Your task to perform on an android device: open app "Google Find My Device" (install if not already installed) Image 0: 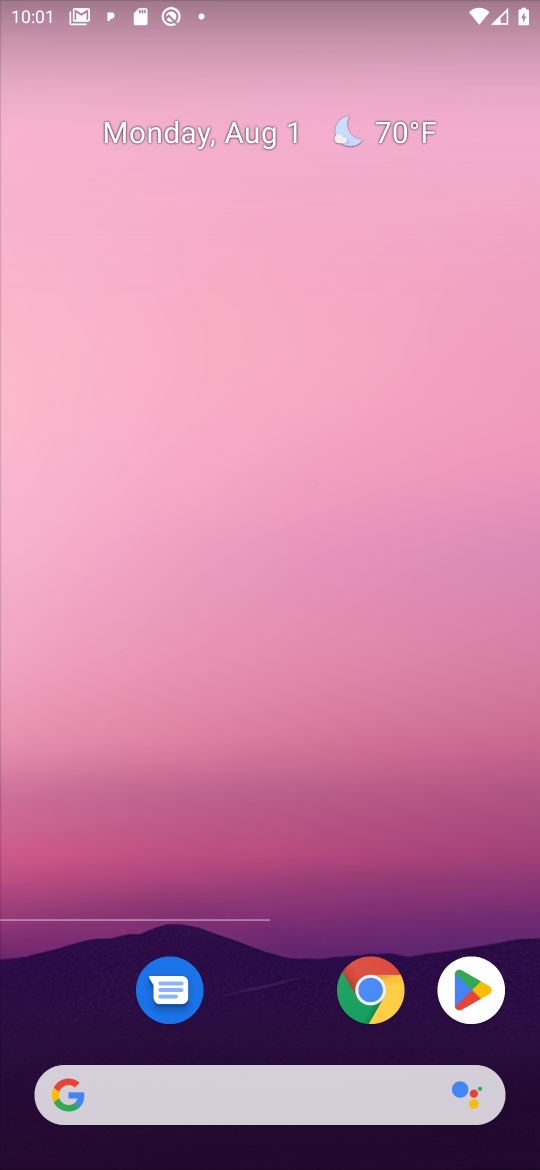
Step 0: press home button
Your task to perform on an android device: open app "Google Find My Device" (install if not already installed) Image 1: 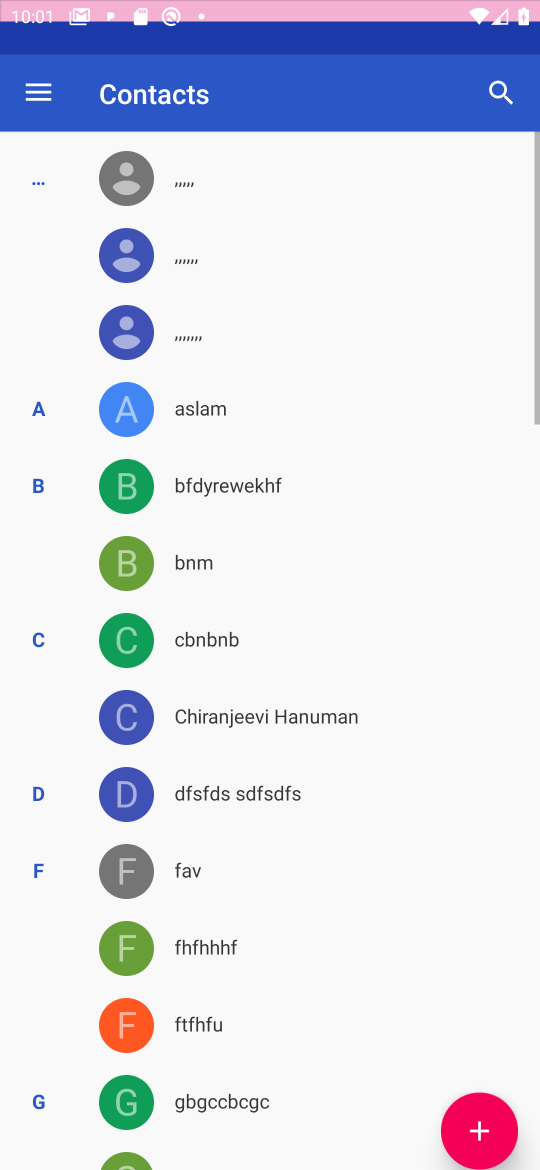
Step 1: click (455, 998)
Your task to perform on an android device: open app "Google Find My Device" (install if not already installed) Image 2: 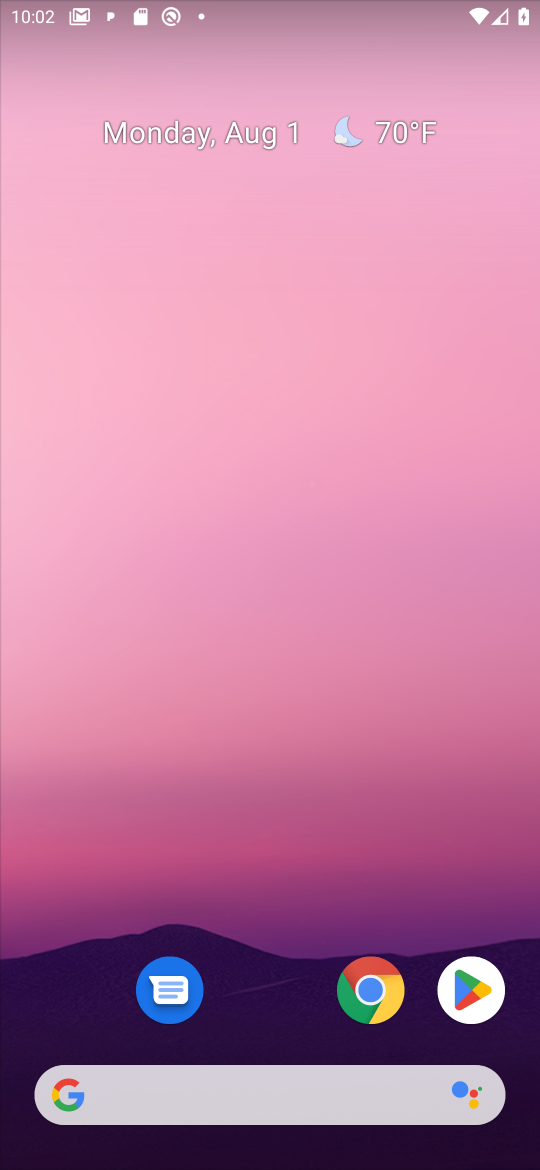
Step 2: press home button
Your task to perform on an android device: open app "Google Find My Device" (install if not already installed) Image 3: 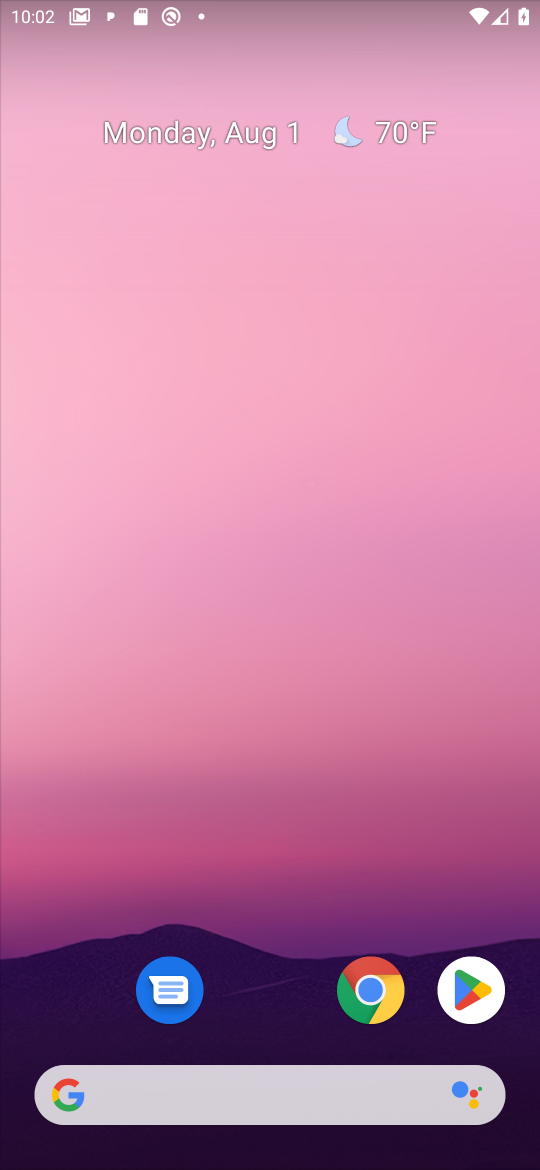
Step 3: click (472, 996)
Your task to perform on an android device: open app "Google Find My Device" (install if not already installed) Image 4: 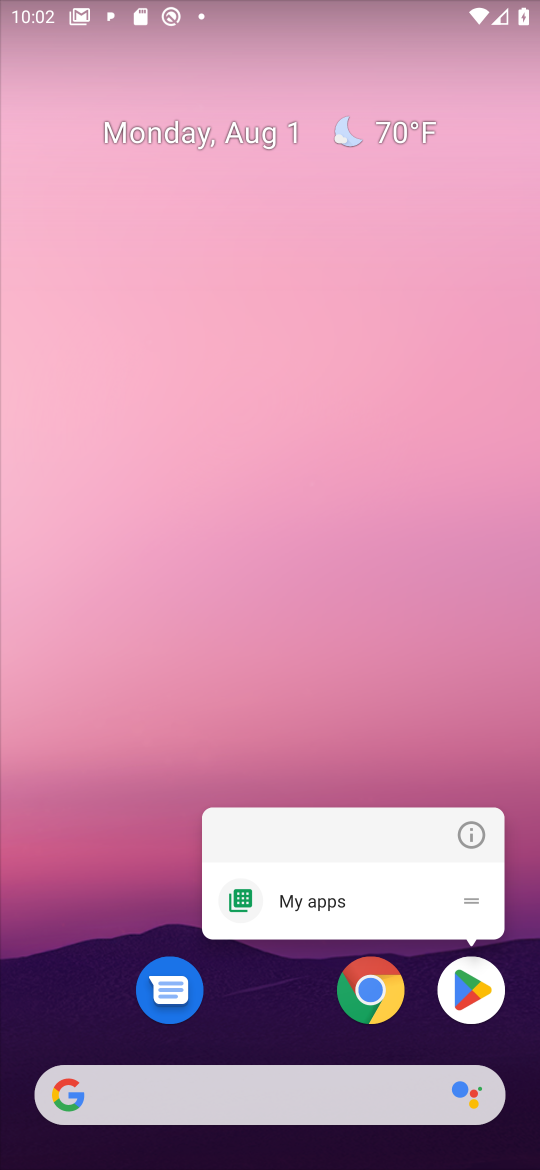
Step 4: click (475, 1002)
Your task to perform on an android device: open app "Google Find My Device" (install if not already installed) Image 5: 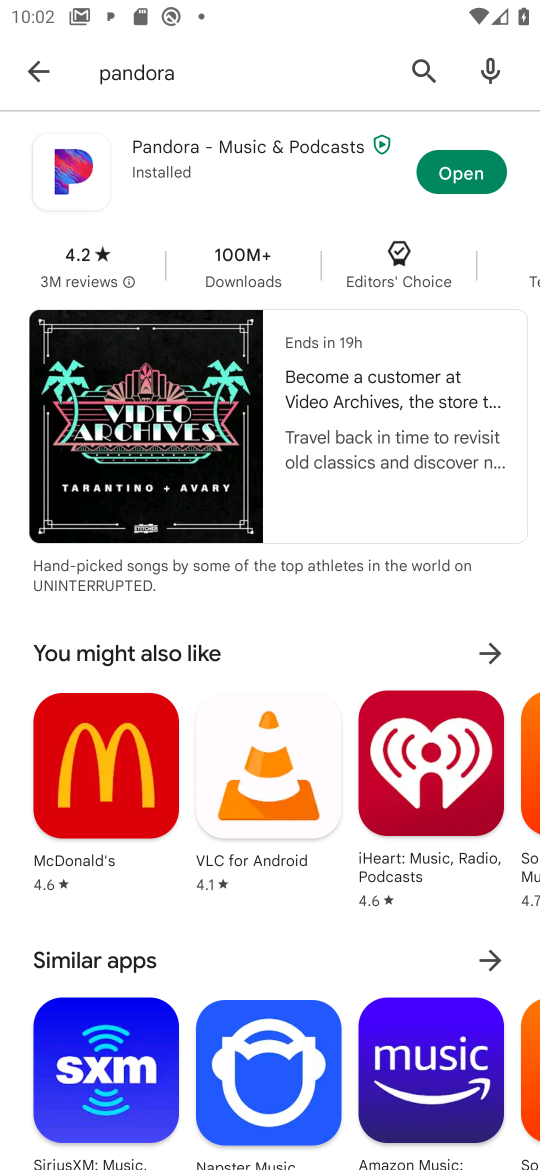
Step 5: click (421, 79)
Your task to perform on an android device: open app "Google Find My Device" (install if not already installed) Image 6: 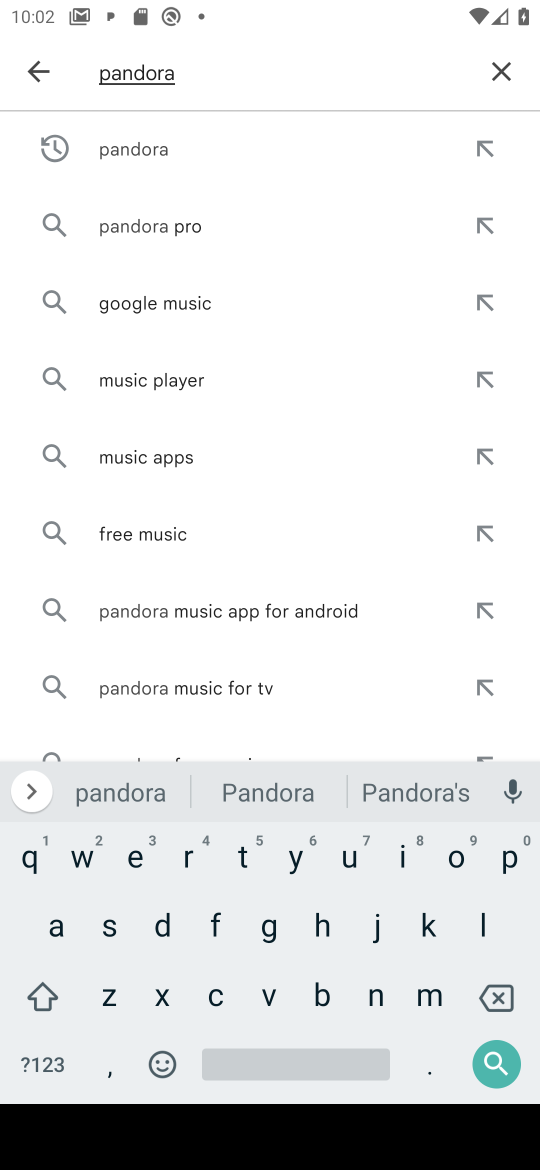
Step 6: click (505, 69)
Your task to perform on an android device: open app "Google Find My Device" (install if not already installed) Image 7: 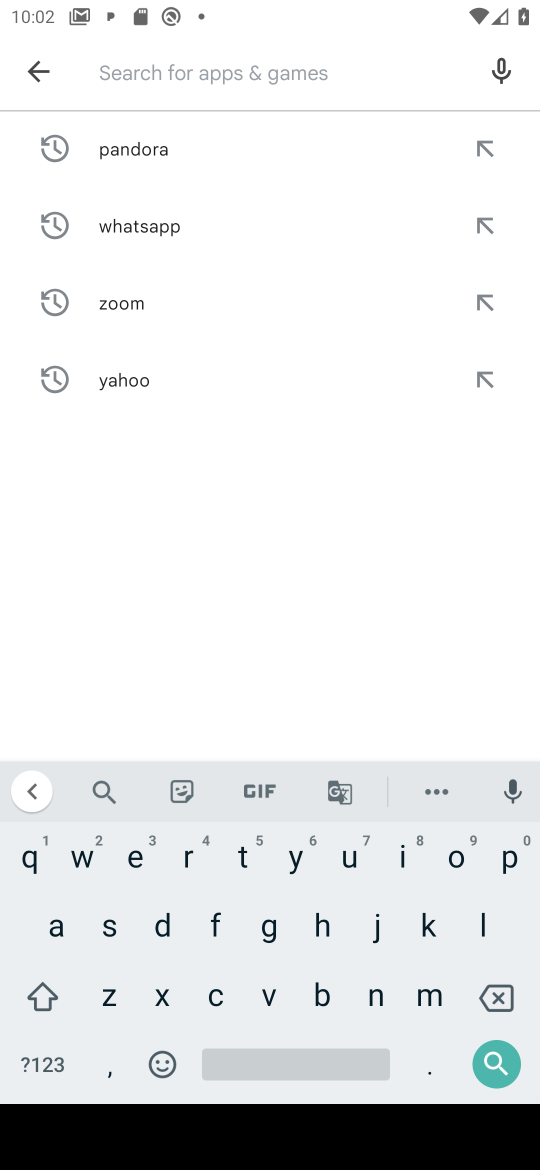
Step 7: click (213, 929)
Your task to perform on an android device: open app "Google Find My Device" (install if not already installed) Image 8: 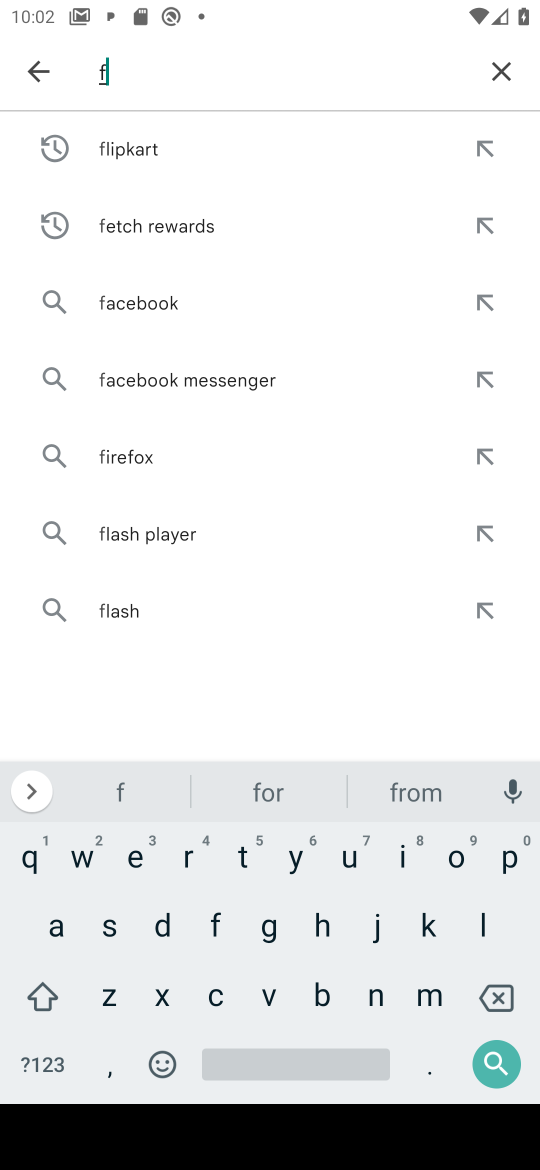
Step 8: click (403, 851)
Your task to perform on an android device: open app "Google Find My Device" (install if not already installed) Image 9: 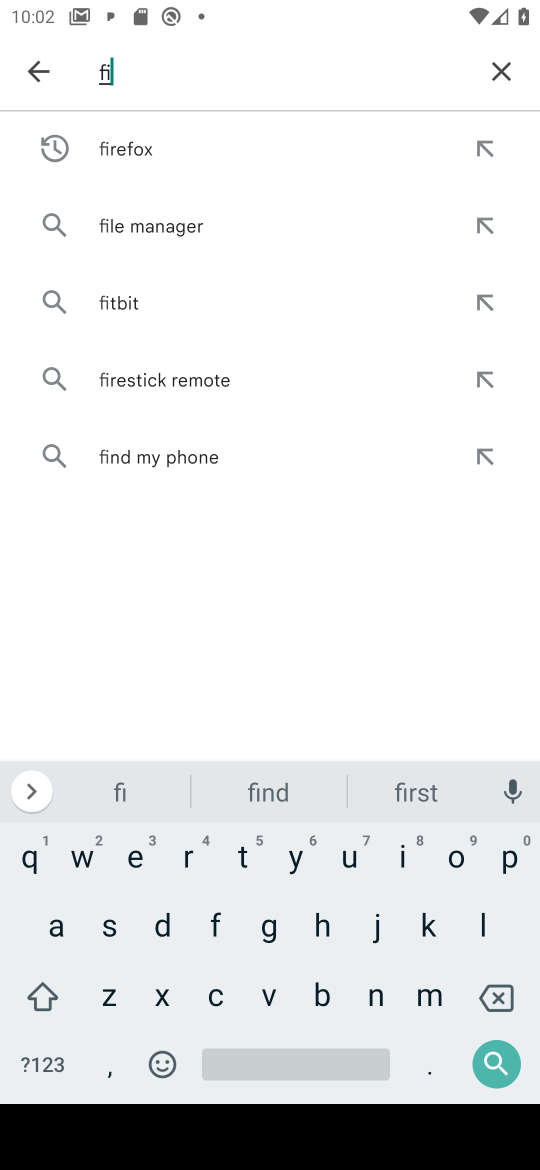
Step 9: click (382, 993)
Your task to perform on an android device: open app "Google Find My Device" (install if not already installed) Image 10: 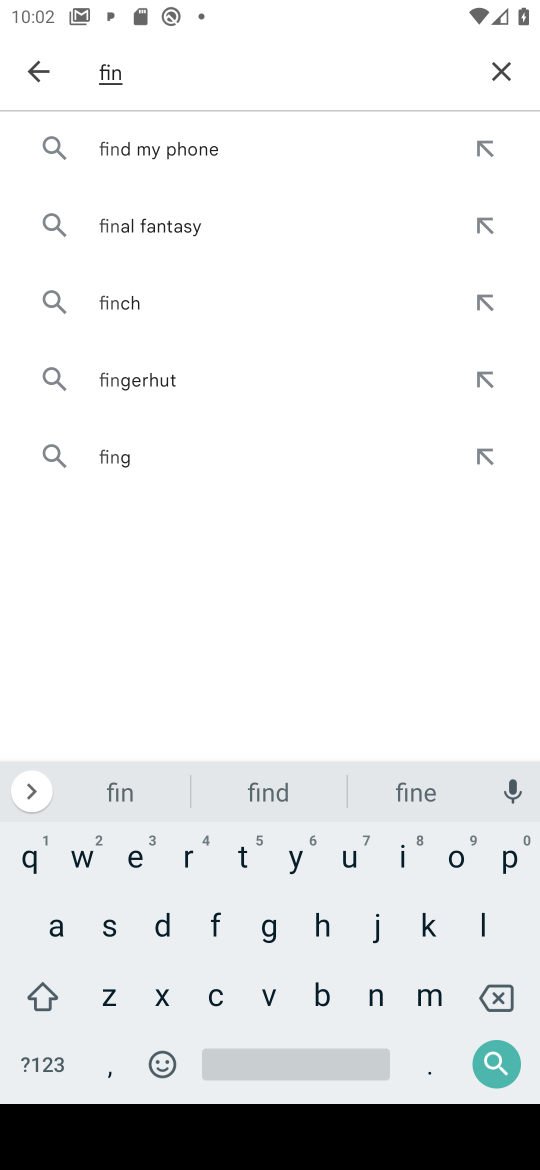
Step 10: click (163, 919)
Your task to perform on an android device: open app "Google Find My Device" (install if not already installed) Image 11: 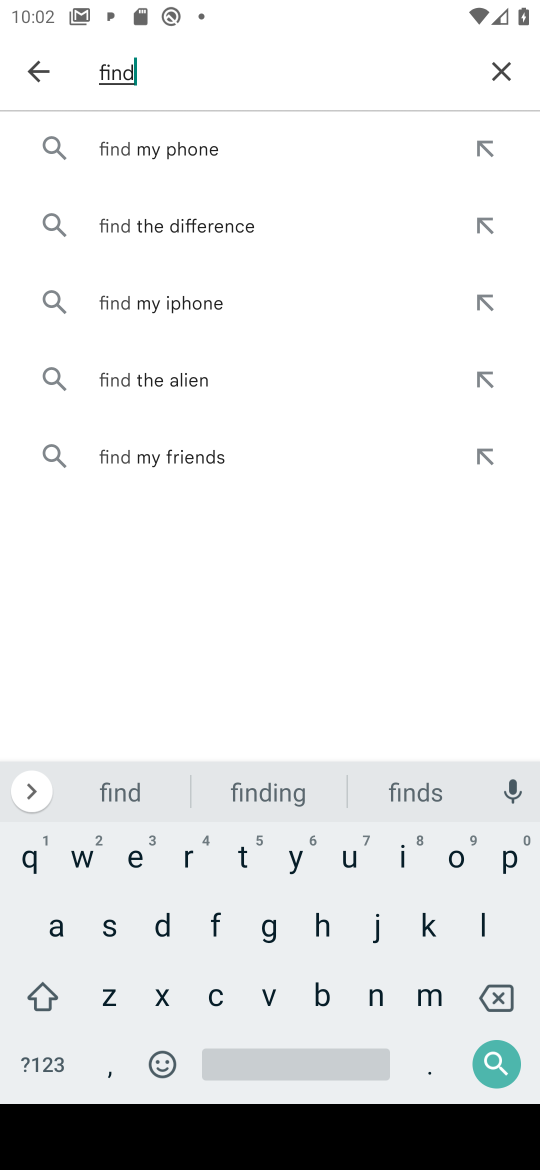
Step 11: click (310, 1049)
Your task to perform on an android device: open app "Google Find My Device" (install if not already installed) Image 12: 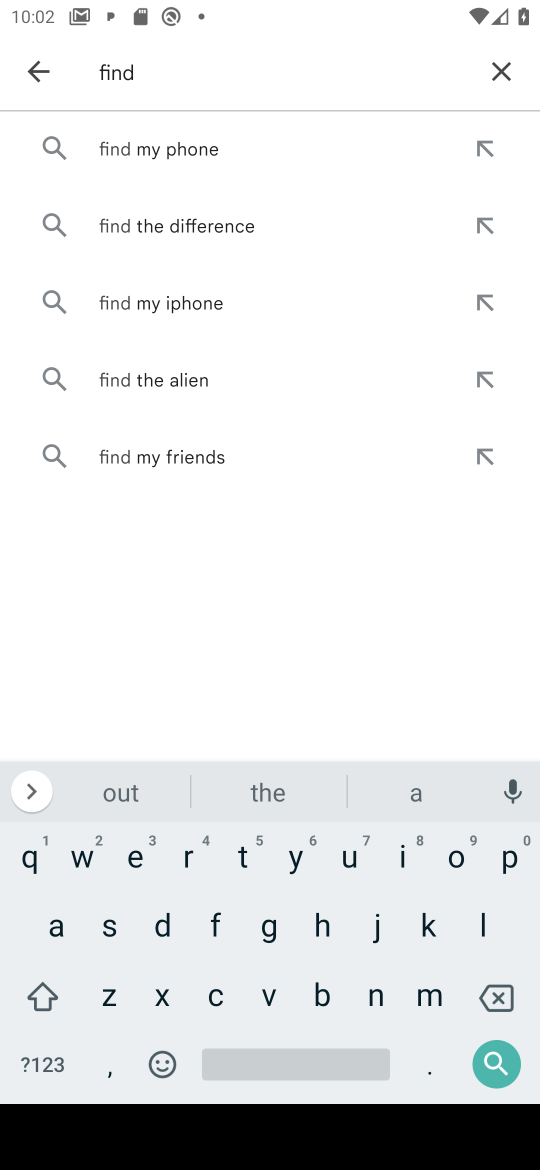
Step 12: click (413, 985)
Your task to perform on an android device: open app "Google Find My Device" (install if not already installed) Image 13: 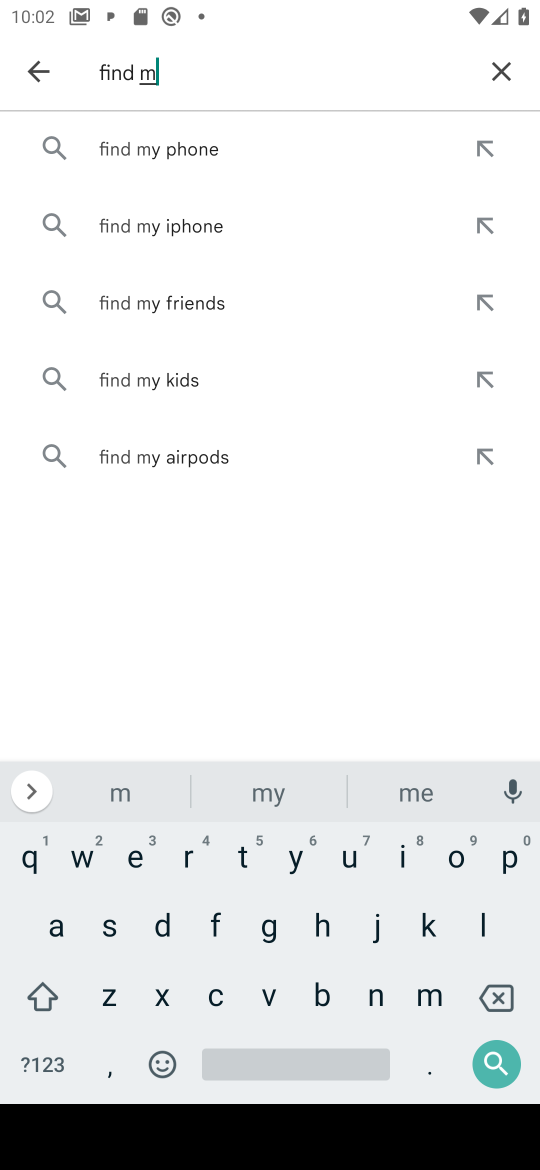
Step 13: click (273, 796)
Your task to perform on an android device: open app "Google Find My Device" (install if not already installed) Image 14: 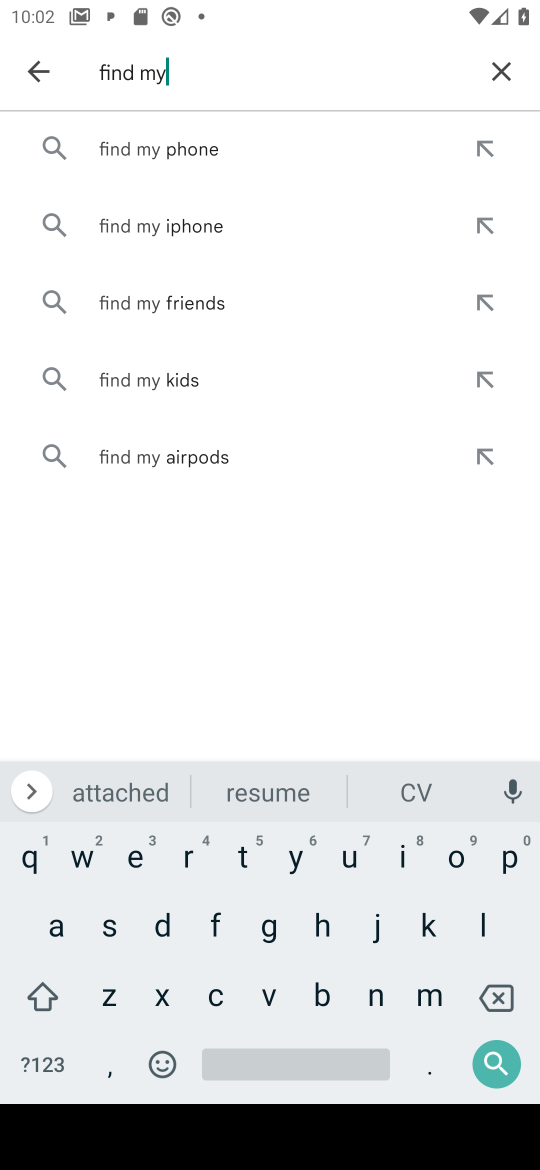
Step 14: click (167, 926)
Your task to perform on an android device: open app "Google Find My Device" (install if not already installed) Image 15: 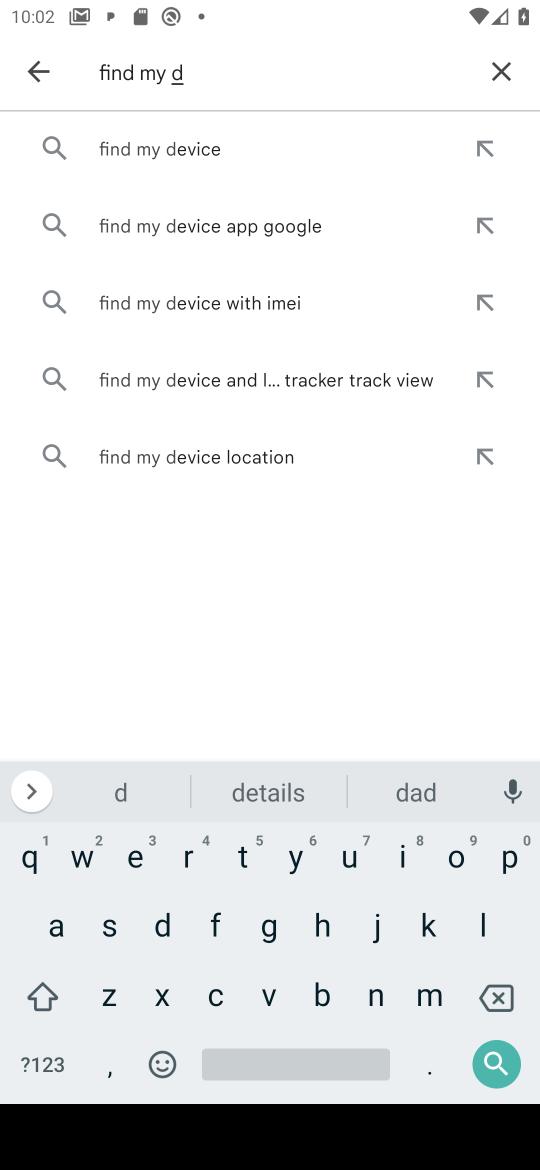
Step 15: click (191, 139)
Your task to perform on an android device: open app "Google Find My Device" (install if not already installed) Image 16: 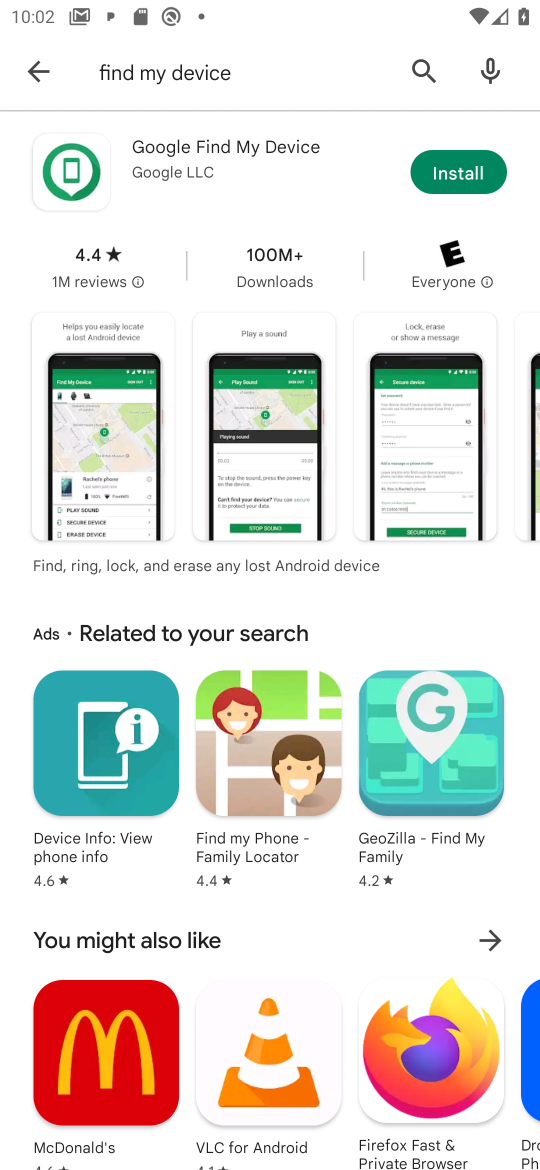
Step 16: click (478, 169)
Your task to perform on an android device: open app "Google Find My Device" (install if not already installed) Image 17: 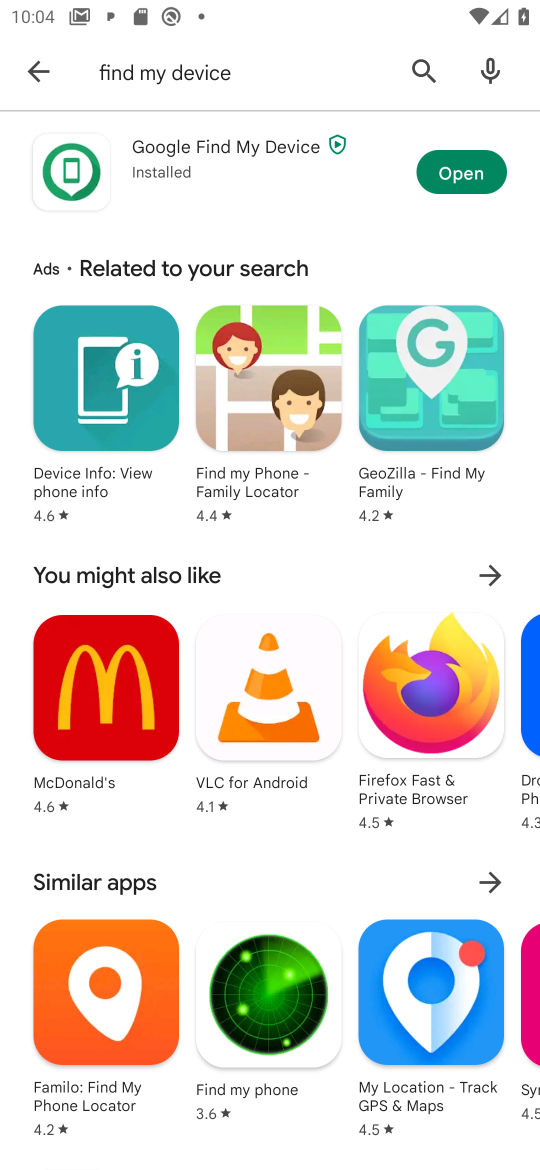
Step 17: click (478, 167)
Your task to perform on an android device: open app "Google Find My Device" (install if not already installed) Image 18: 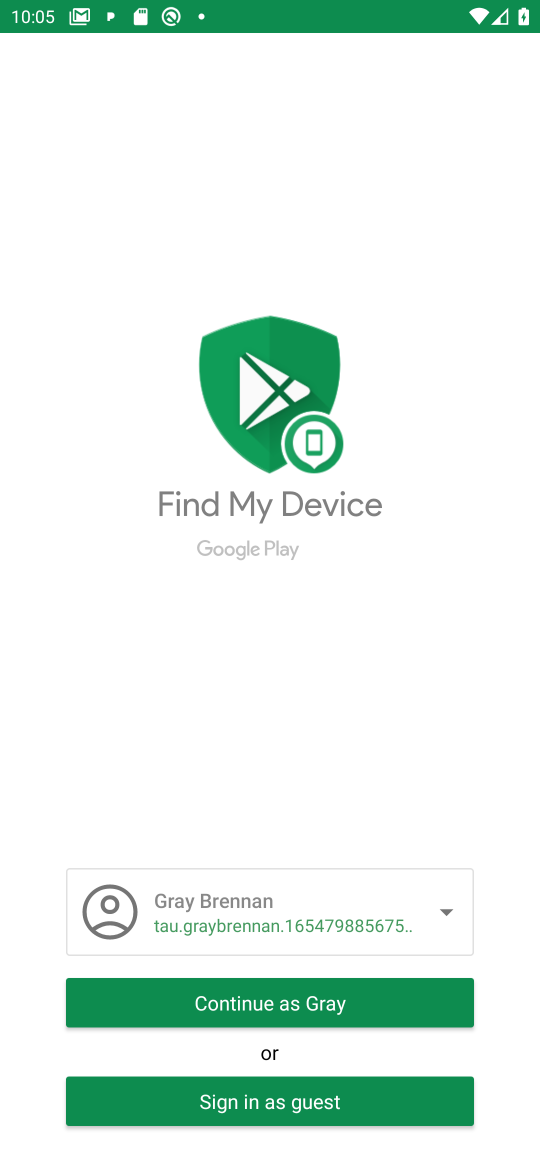
Step 18: task complete